Your task to perform on an android device: allow notifications from all sites in the chrome app Image 0: 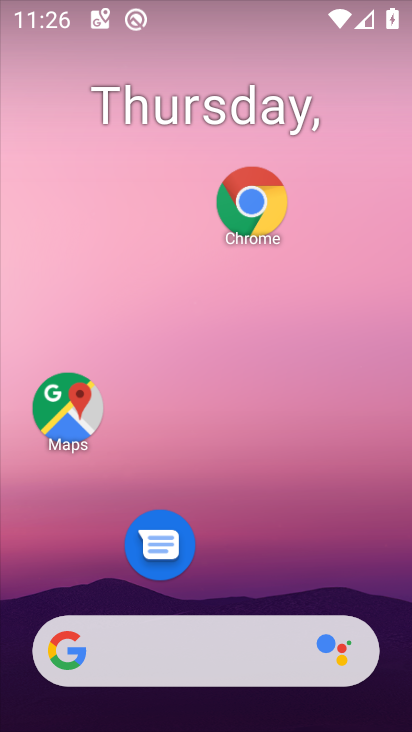
Step 0: drag from (235, 565) to (234, 71)
Your task to perform on an android device: allow notifications from all sites in the chrome app Image 1: 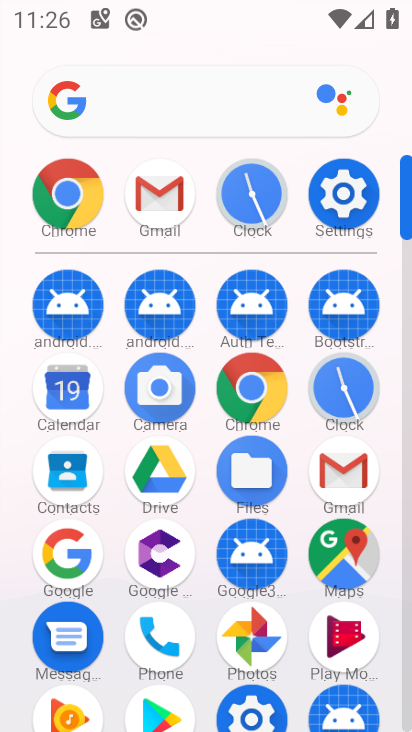
Step 1: click (257, 418)
Your task to perform on an android device: allow notifications from all sites in the chrome app Image 2: 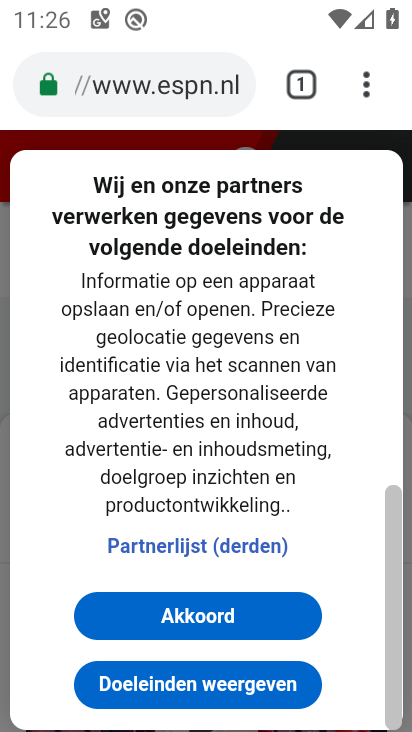
Step 2: click (365, 87)
Your task to perform on an android device: allow notifications from all sites in the chrome app Image 3: 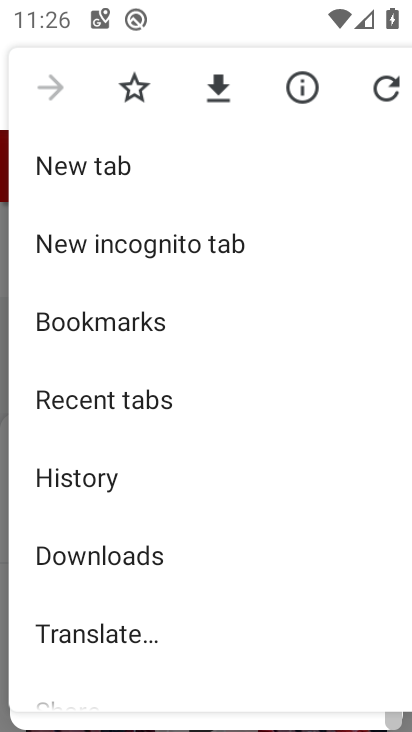
Step 3: drag from (173, 586) to (155, 181)
Your task to perform on an android device: allow notifications from all sites in the chrome app Image 4: 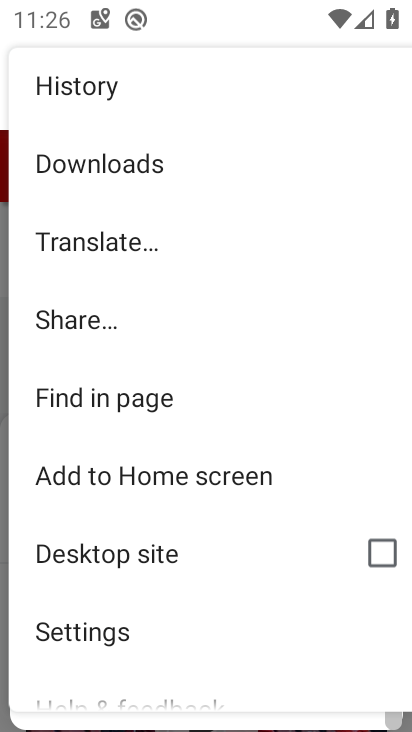
Step 4: click (123, 640)
Your task to perform on an android device: allow notifications from all sites in the chrome app Image 5: 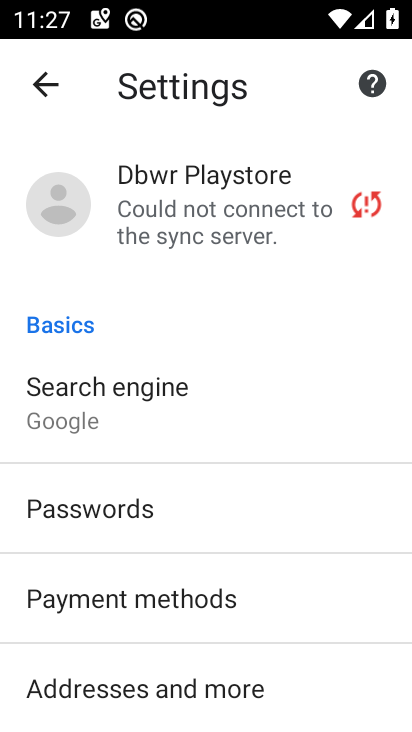
Step 5: drag from (123, 640) to (123, 340)
Your task to perform on an android device: allow notifications from all sites in the chrome app Image 6: 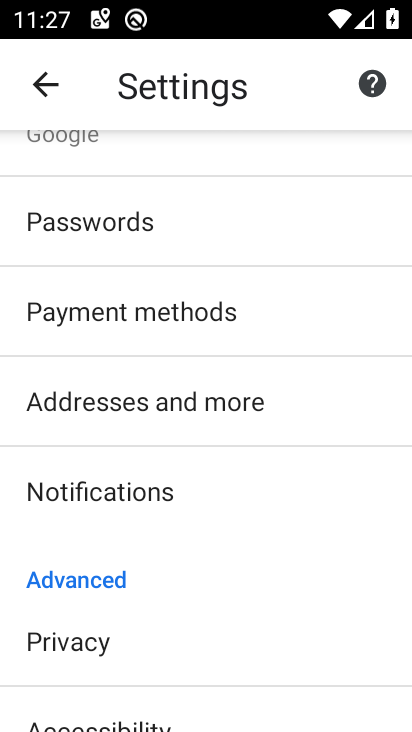
Step 6: drag from (212, 617) to (209, 218)
Your task to perform on an android device: allow notifications from all sites in the chrome app Image 7: 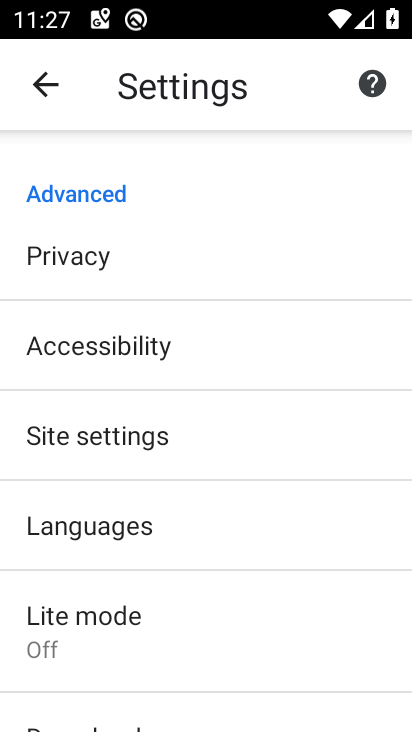
Step 7: click (125, 439)
Your task to perform on an android device: allow notifications from all sites in the chrome app Image 8: 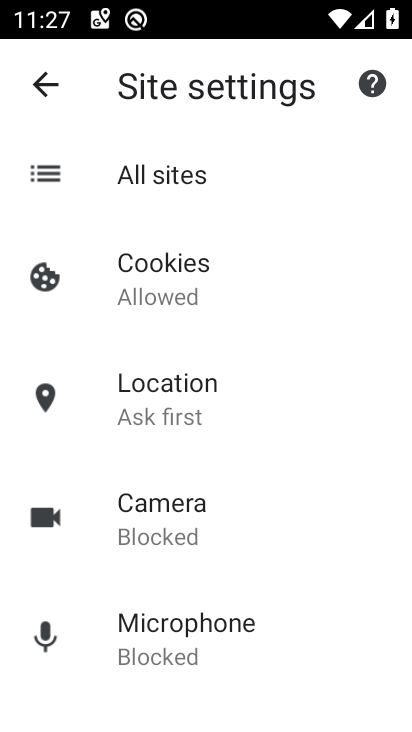
Step 8: click (157, 179)
Your task to perform on an android device: allow notifications from all sites in the chrome app Image 9: 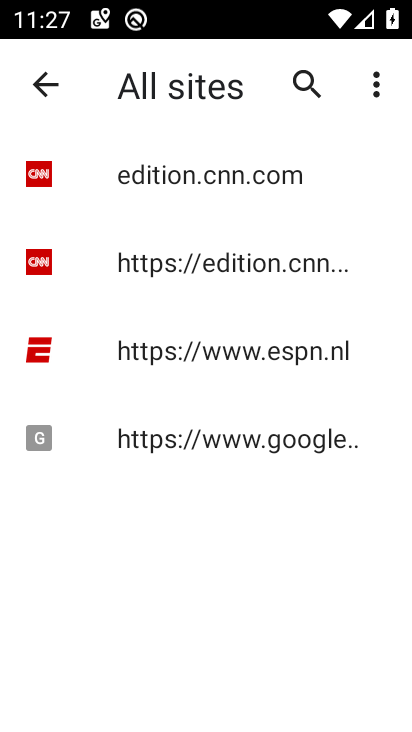
Step 9: click (165, 432)
Your task to perform on an android device: allow notifications from all sites in the chrome app Image 10: 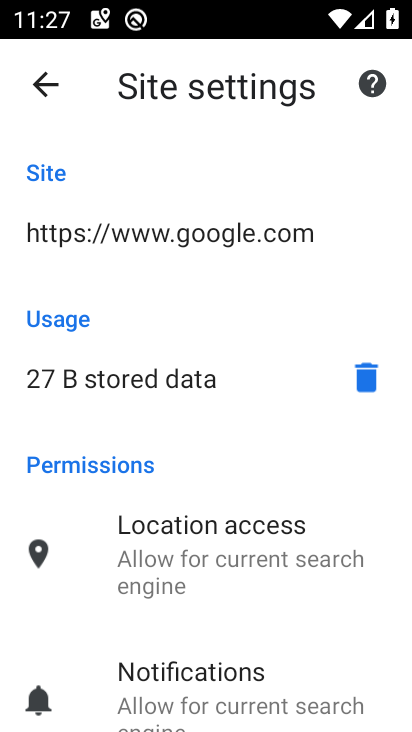
Step 10: click (197, 687)
Your task to perform on an android device: allow notifications from all sites in the chrome app Image 11: 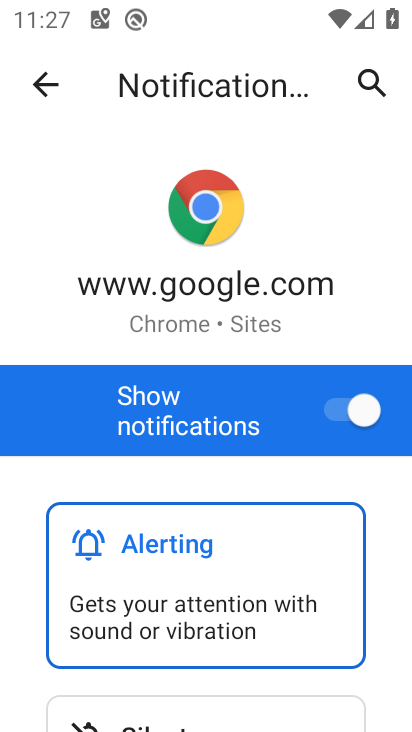
Step 11: task complete